Your task to perform on an android device: Go to notification settings Image 0: 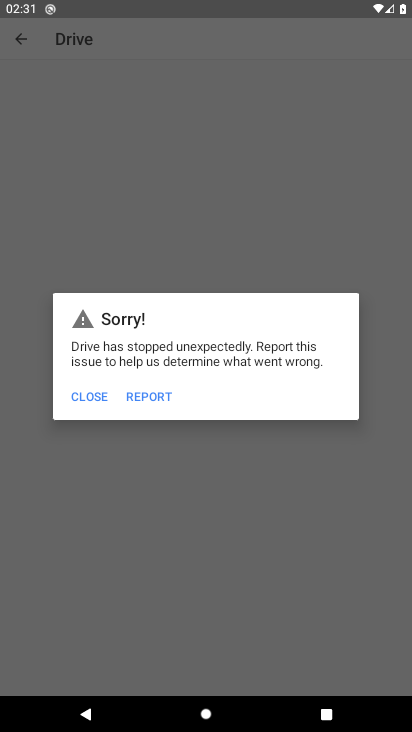
Step 0: press home button
Your task to perform on an android device: Go to notification settings Image 1: 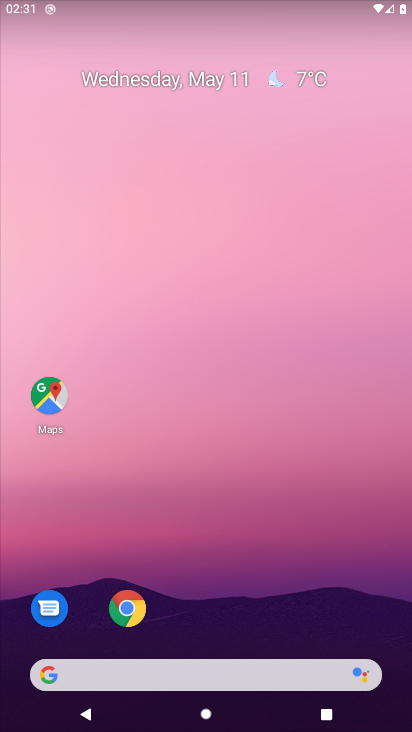
Step 1: drag from (210, 633) to (242, 4)
Your task to perform on an android device: Go to notification settings Image 2: 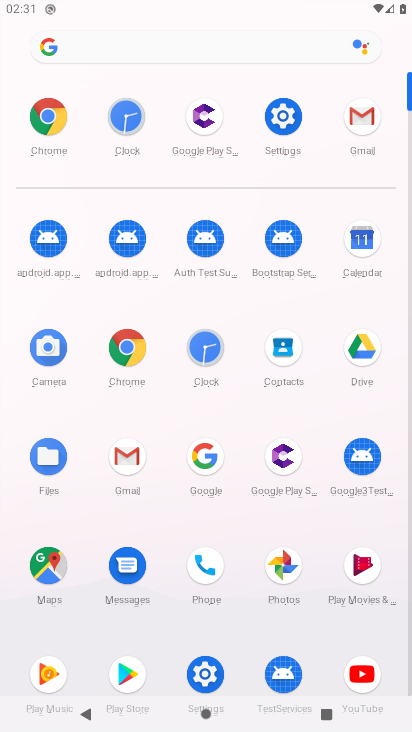
Step 2: click (280, 116)
Your task to perform on an android device: Go to notification settings Image 3: 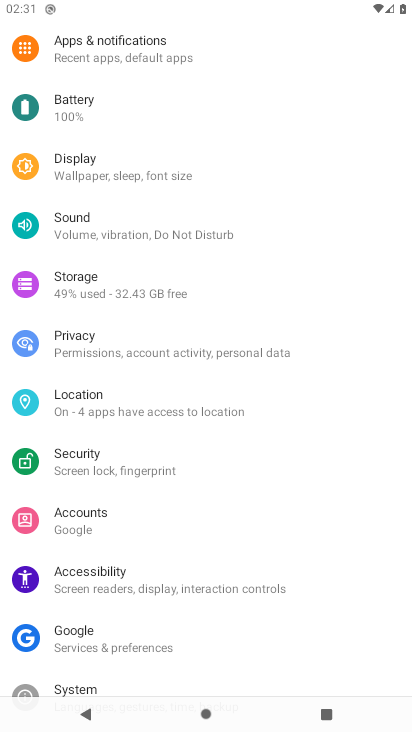
Step 3: click (132, 53)
Your task to perform on an android device: Go to notification settings Image 4: 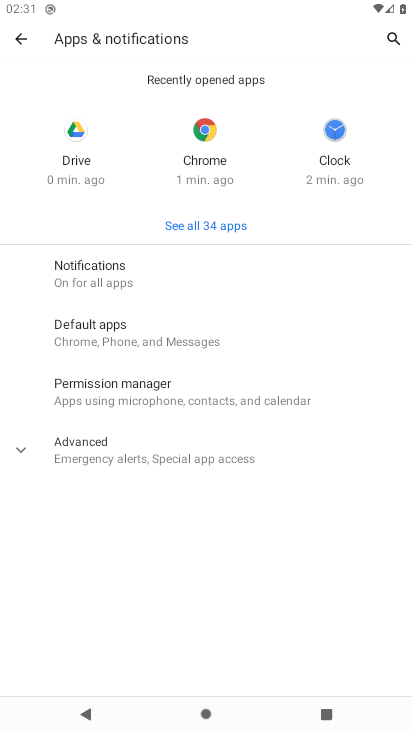
Step 4: click (141, 271)
Your task to perform on an android device: Go to notification settings Image 5: 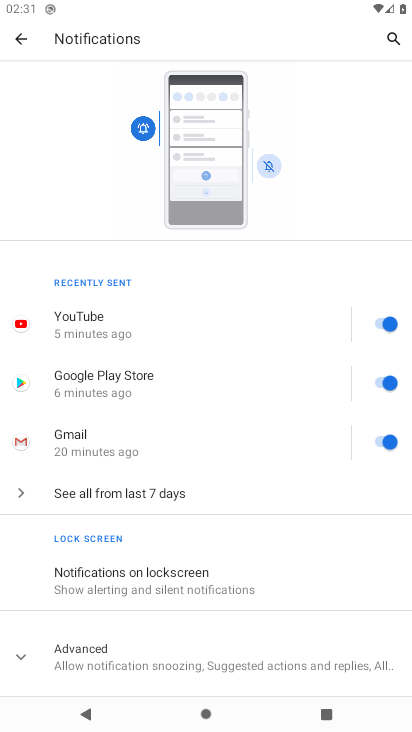
Step 5: click (125, 653)
Your task to perform on an android device: Go to notification settings Image 6: 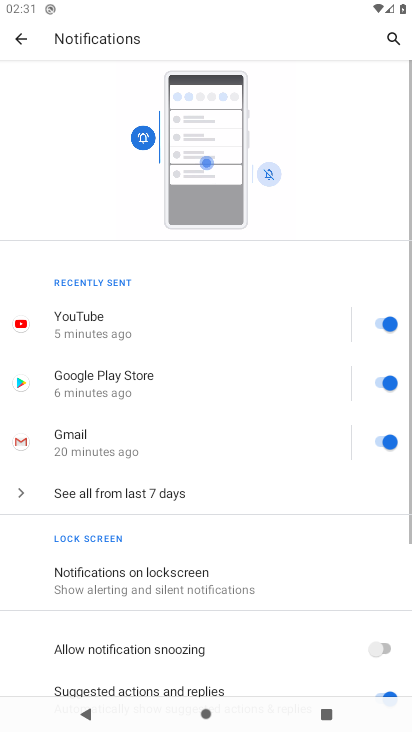
Step 6: drag from (217, 648) to (212, 216)
Your task to perform on an android device: Go to notification settings Image 7: 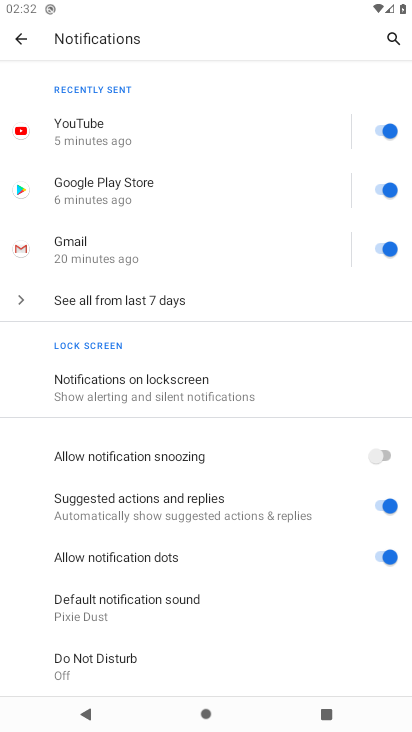
Step 7: drag from (221, 596) to (227, 432)
Your task to perform on an android device: Go to notification settings Image 8: 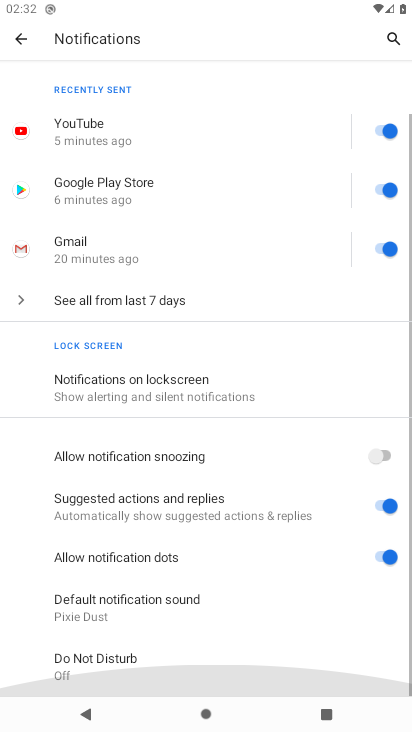
Step 8: click (251, 244)
Your task to perform on an android device: Go to notification settings Image 9: 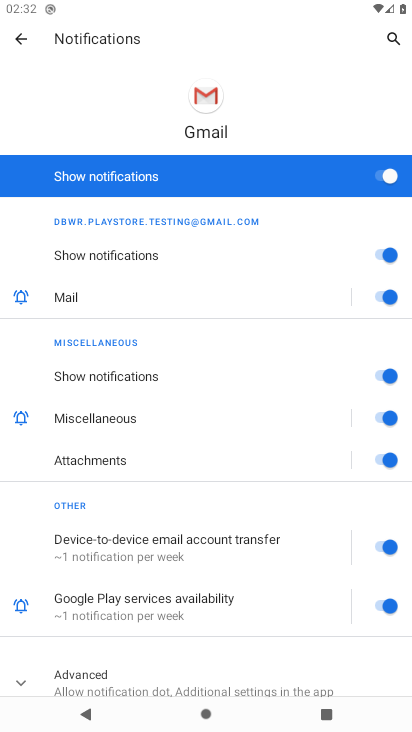
Step 9: click (18, 42)
Your task to perform on an android device: Go to notification settings Image 10: 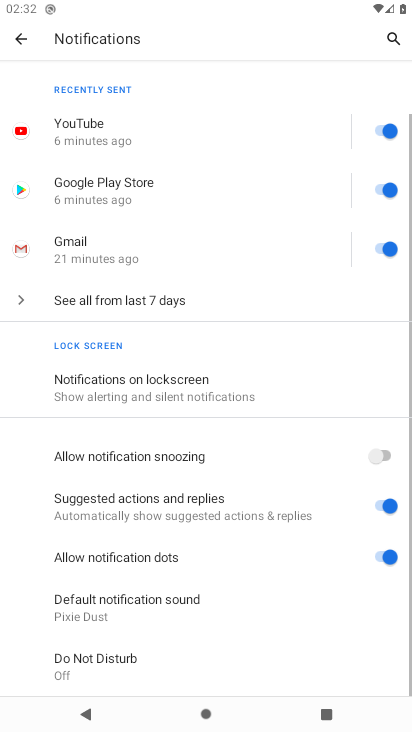
Step 10: task complete